Your task to perform on an android device: turn on improve location accuracy Image 0: 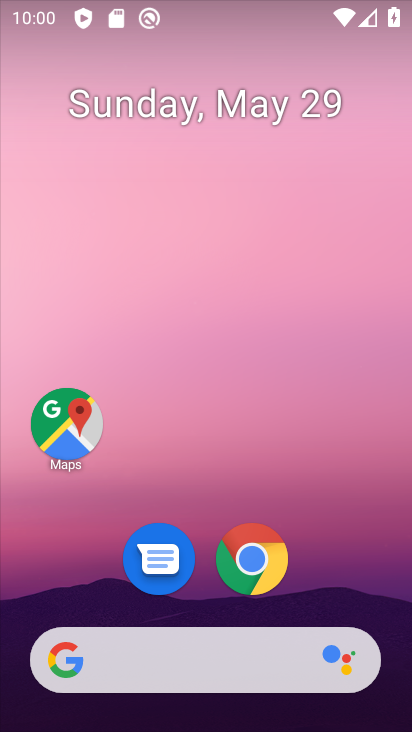
Step 0: drag from (313, 573) to (386, 0)
Your task to perform on an android device: turn on improve location accuracy Image 1: 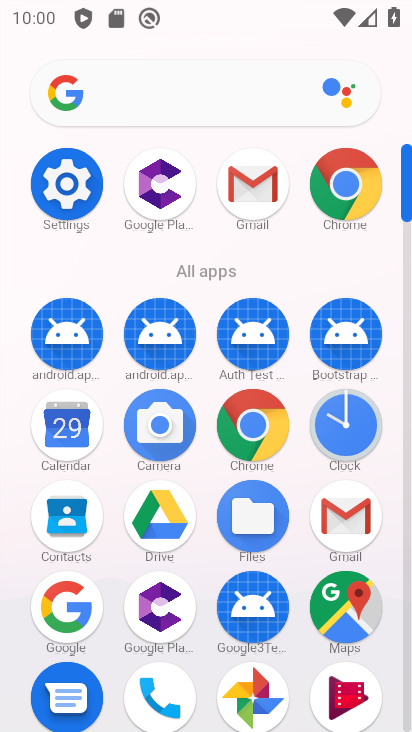
Step 1: click (47, 171)
Your task to perform on an android device: turn on improve location accuracy Image 2: 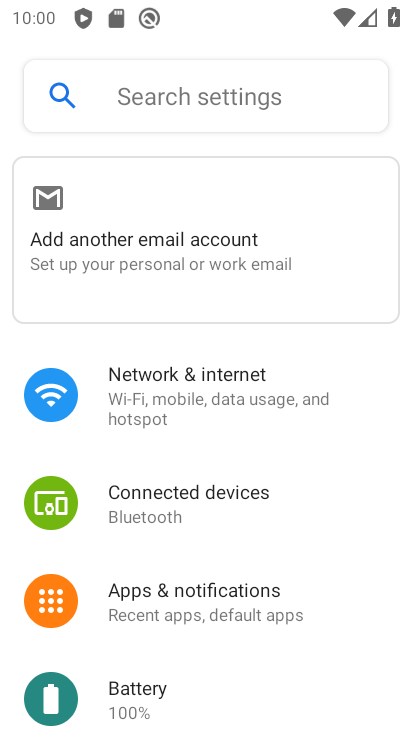
Step 2: drag from (220, 693) to (190, 239)
Your task to perform on an android device: turn on improve location accuracy Image 3: 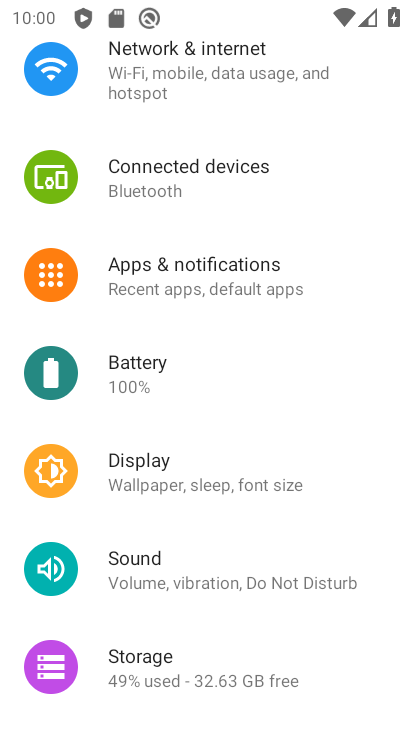
Step 3: drag from (171, 641) to (199, 366)
Your task to perform on an android device: turn on improve location accuracy Image 4: 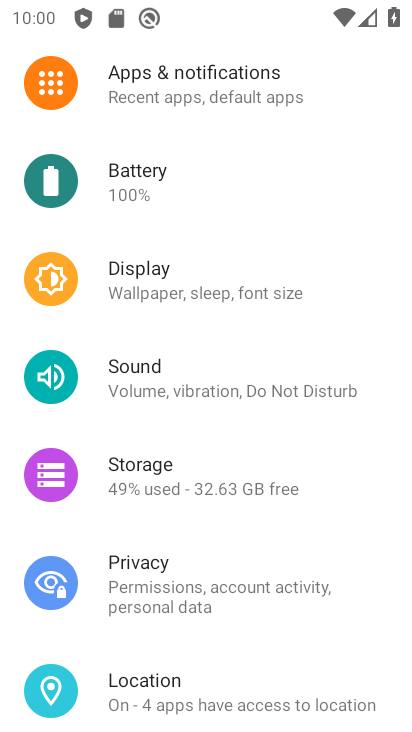
Step 4: click (143, 685)
Your task to perform on an android device: turn on improve location accuracy Image 5: 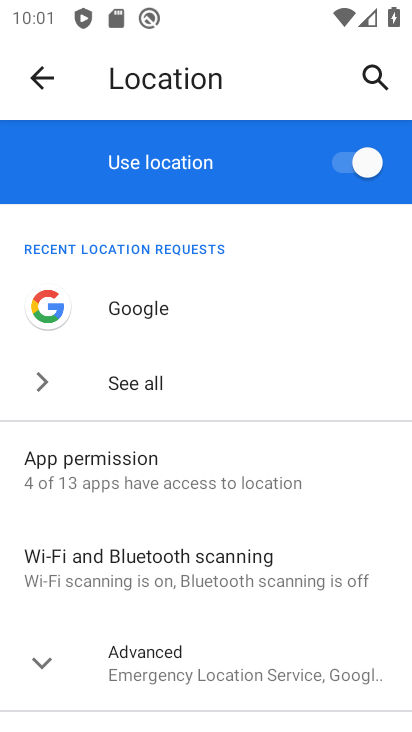
Step 5: click (127, 664)
Your task to perform on an android device: turn on improve location accuracy Image 6: 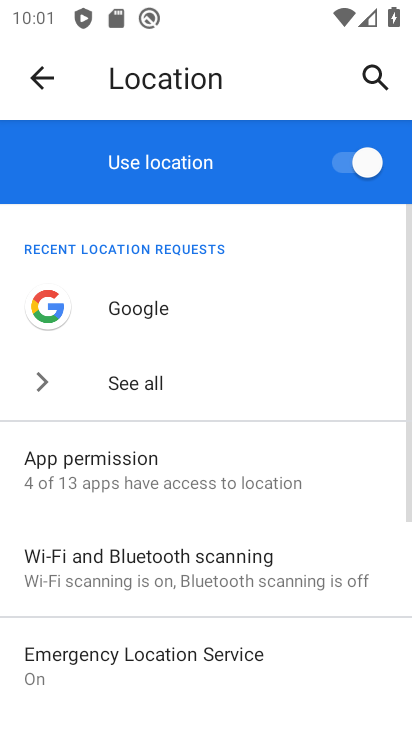
Step 6: drag from (153, 691) to (221, 254)
Your task to perform on an android device: turn on improve location accuracy Image 7: 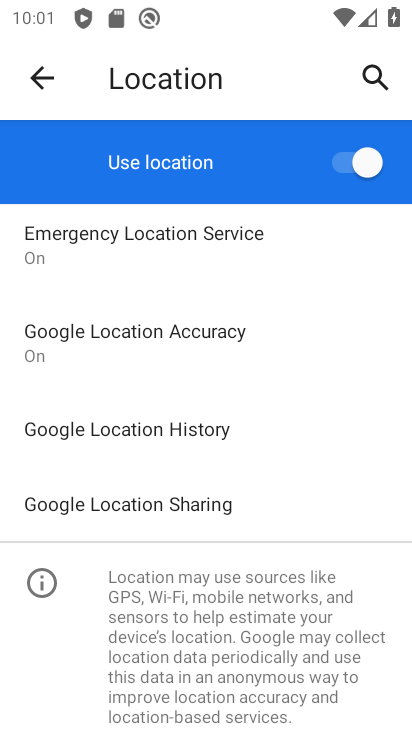
Step 7: click (136, 337)
Your task to perform on an android device: turn on improve location accuracy Image 8: 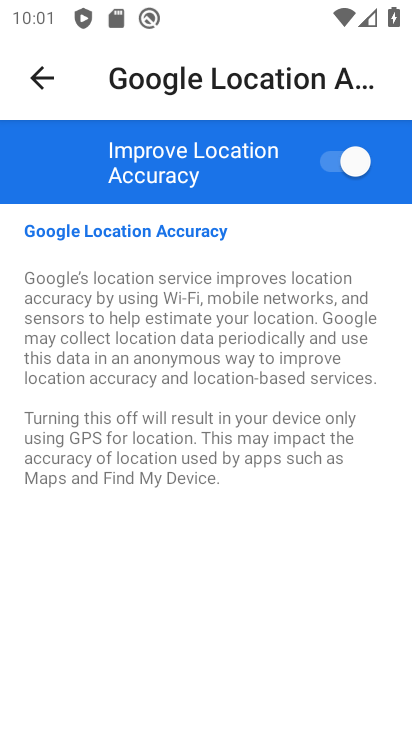
Step 8: click (332, 163)
Your task to perform on an android device: turn on improve location accuracy Image 9: 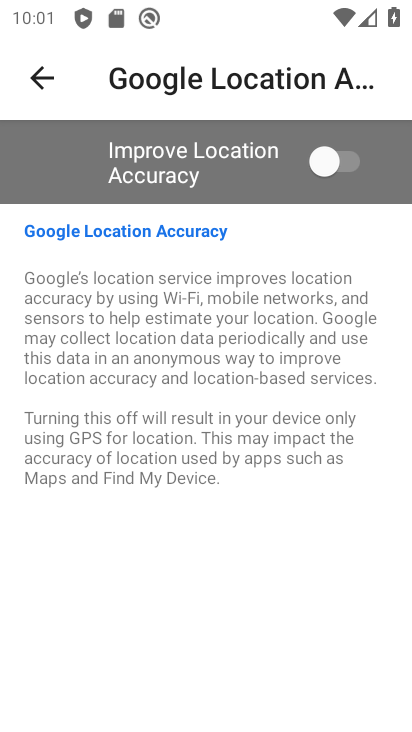
Step 9: task complete